Your task to perform on an android device: turn on airplane mode Image 0: 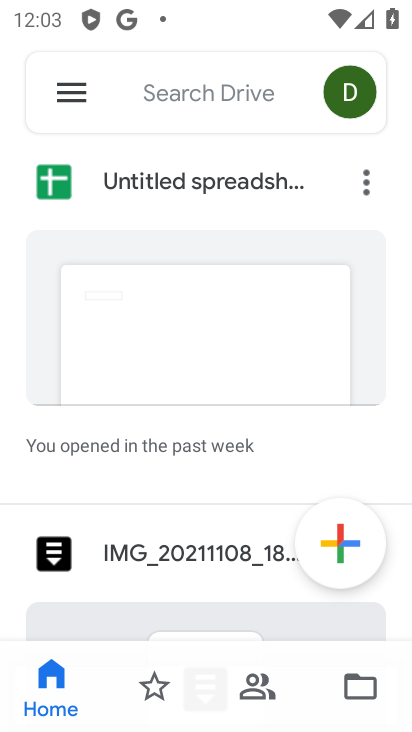
Step 0: press home button
Your task to perform on an android device: turn on airplane mode Image 1: 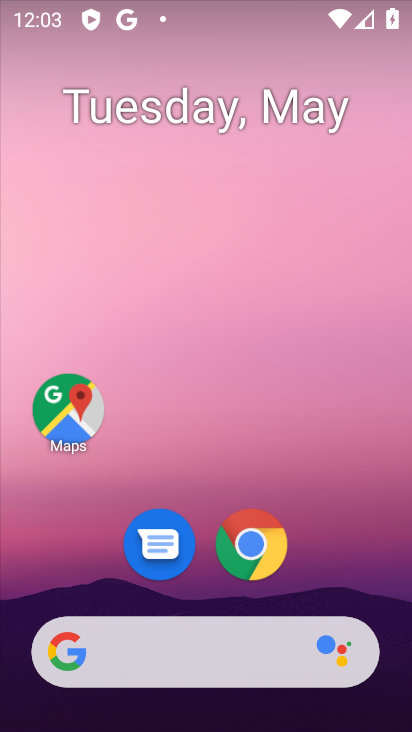
Step 1: drag from (209, 579) to (208, 113)
Your task to perform on an android device: turn on airplane mode Image 2: 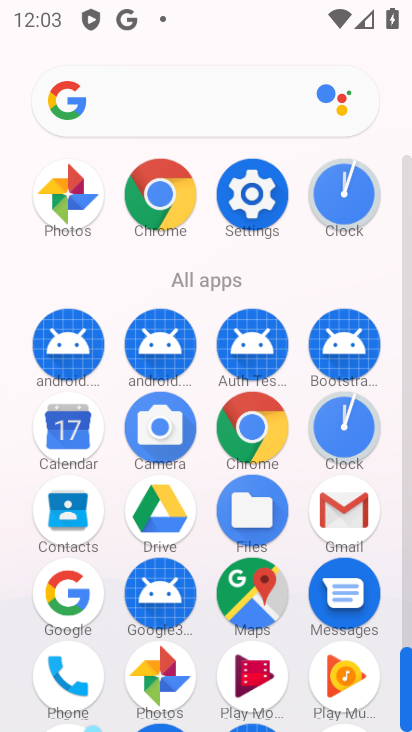
Step 2: click (240, 157)
Your task to perform on an android device: turn on airplane mode Image 3: 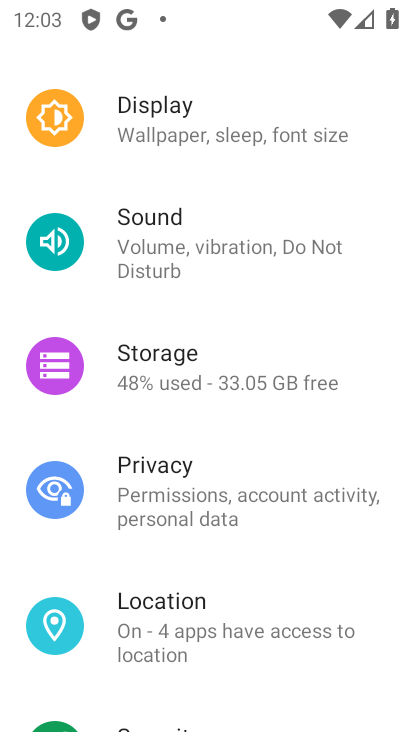
Step 3: drag from (244, 154) to (253, 535)
Your task to perform on an android device: turn on airplane mode Image 4: 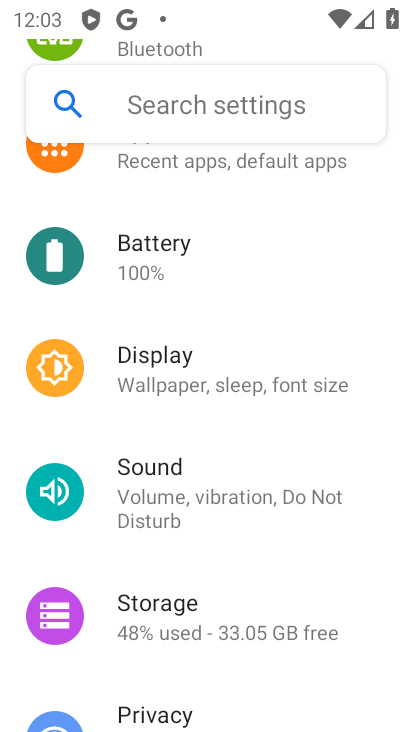
Step 4: drag from (252, 180) to (253, 567)
Your task to perform on an android device: turn on airplane mode Image 5: 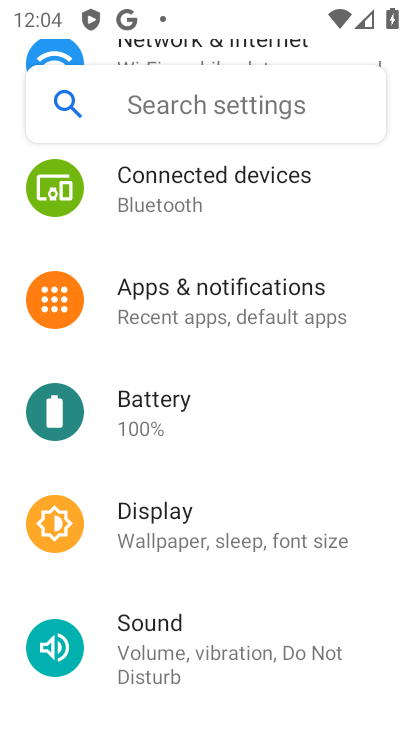
Step 5: drag from (272, 198) to (272, 663)
Your task to perform on an android device: turn on airplane mode Image 6: 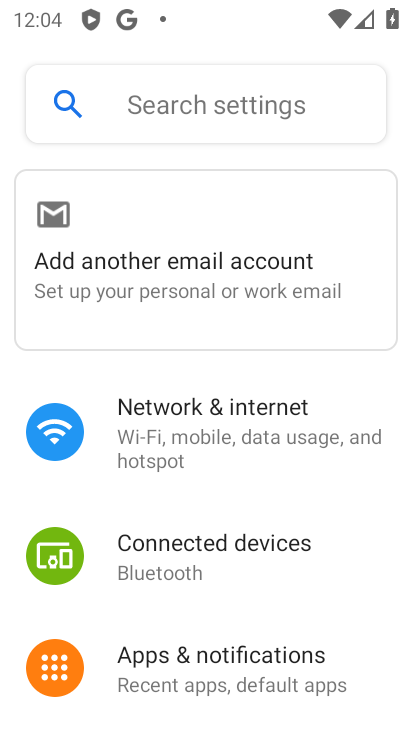
Step 6: click (255, 423)
Your task to perform on an android device: turn on airplane mode Image 7: 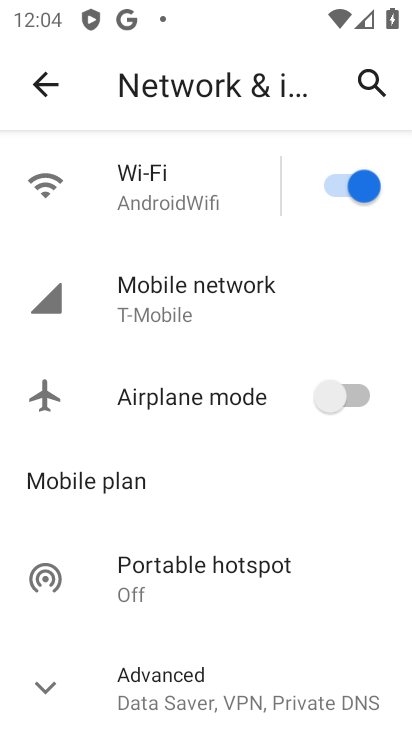
Step 7: click (357, 380)
Your task to perform on an android device: turn on airplane mode Image 8: 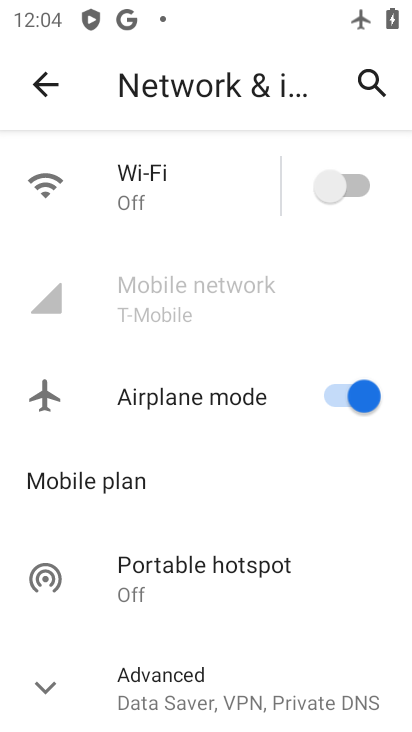
Step 8: task complete